Your task to perform on an android device: Go to eBay Image 0: 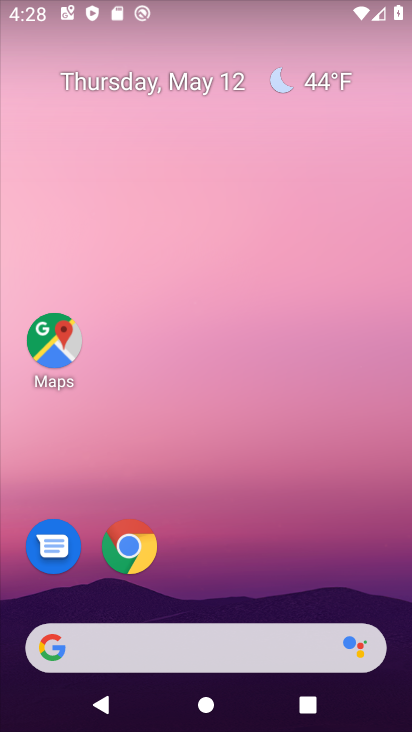
Step 0: click (128, 565)
Your task to perform on an android device: Go to eBay Image 1: 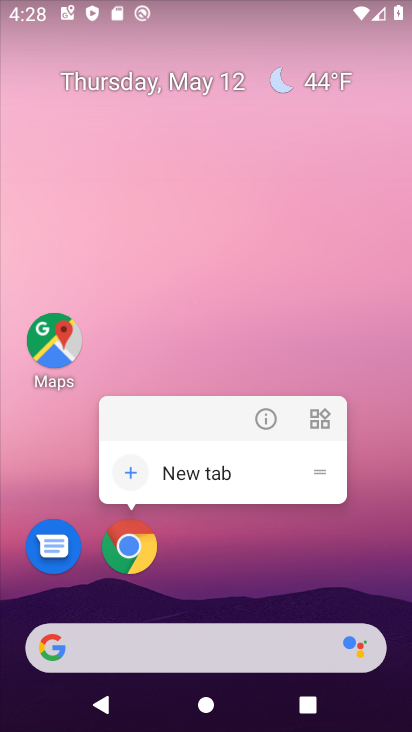
Step 1: click (128, 553)
Your task to perform on an android device: Go to eBay Image 2: 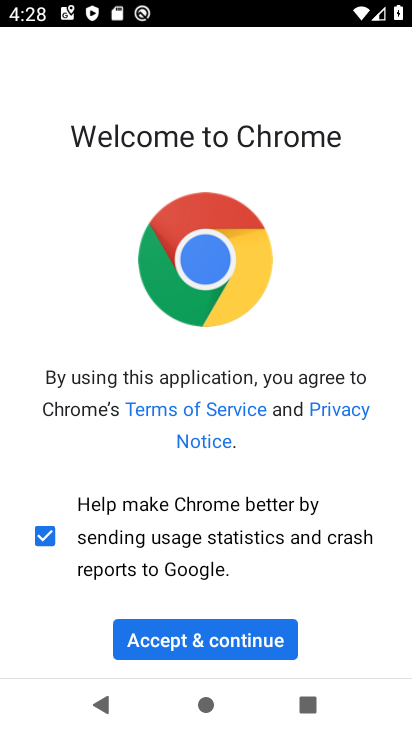
Step 2: click (215, 650)
Your task to perform on an android device: Go to eBay Image 3: 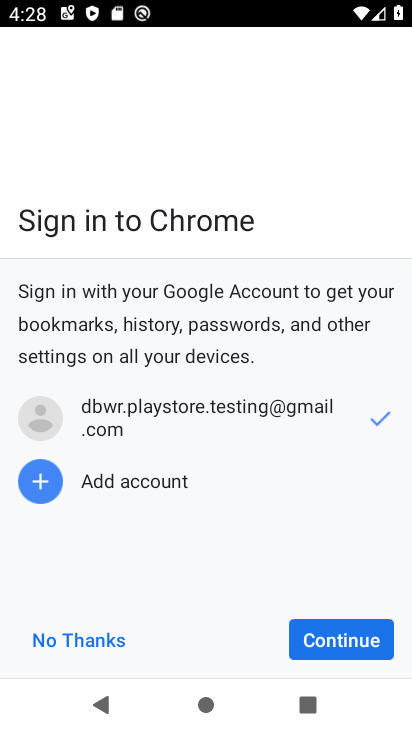
Step 3: click (344, 653)
Your task to perform on an android device: Go to eBay Image 4: 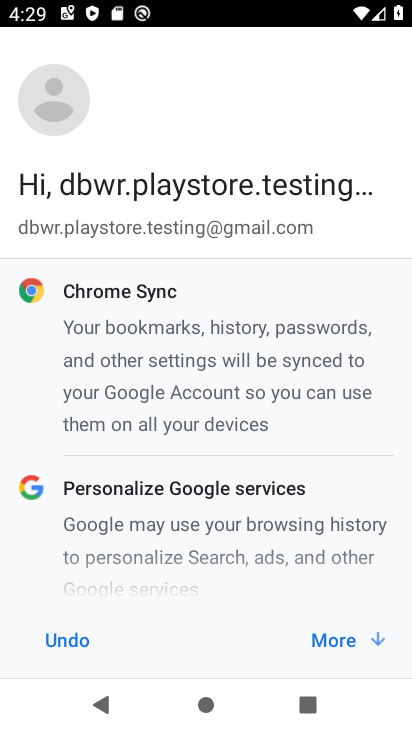
Step 4: click (329, 629)
Your task to perform on an android device: Go to eBay Image 5: 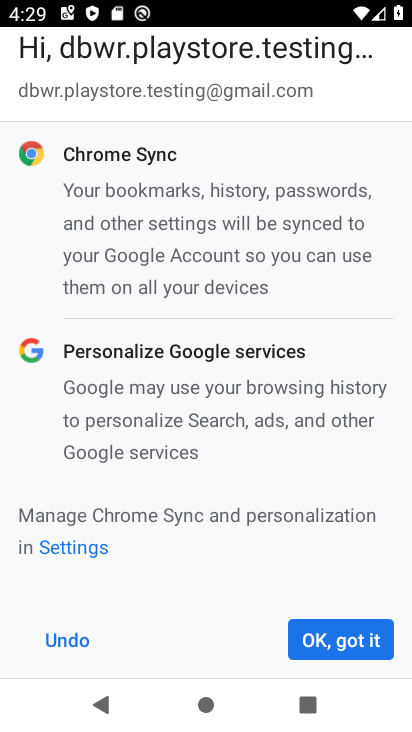
Step 5: click (343, 652)
Your task to perform on an android device: Go to eBay Image 6: 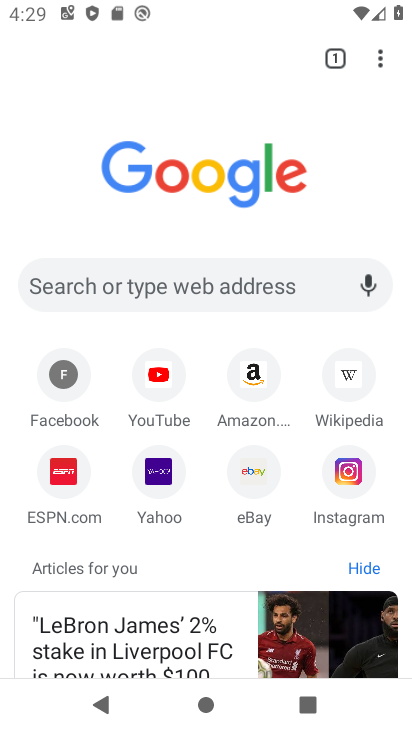
Step 6: click (260, 468)
Your task to perform on an android device: Go to eBay Image 7: 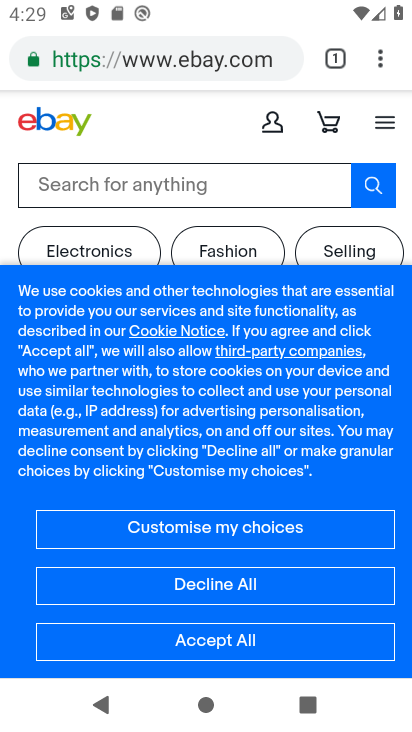
Step 7: task complete